Your task to perform on an android device: move a message to another label in the gmail app Image 0: 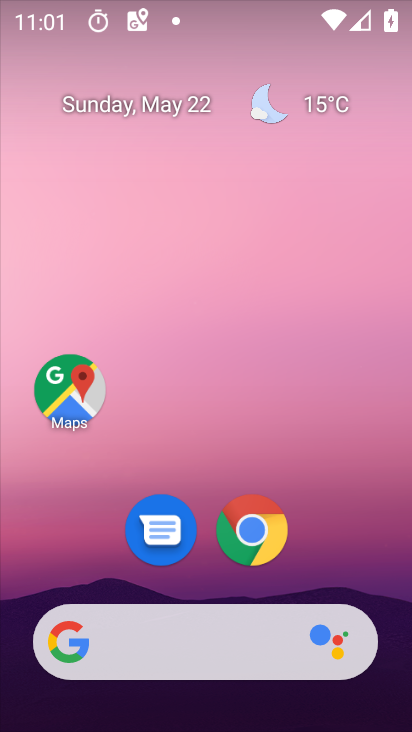
Step 0: drag from (394, 650) to (373, 278)
Your task to perform on an android device: move a message to another label in the gmail app Image 1: 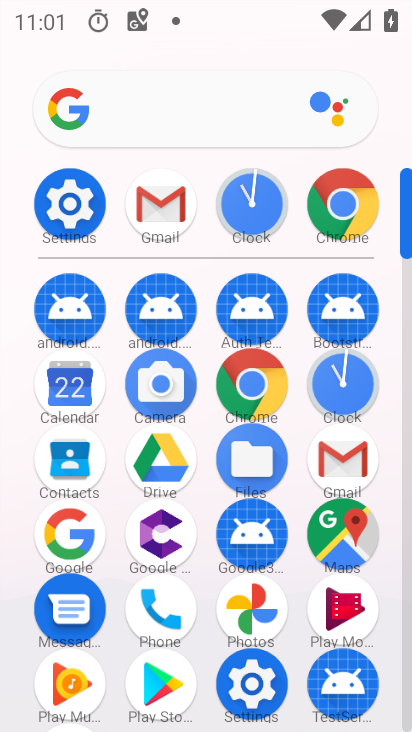
Step 1: click (164, 199)
Your task to perform on an android device: move a message to another label in the gmail app Image 2: 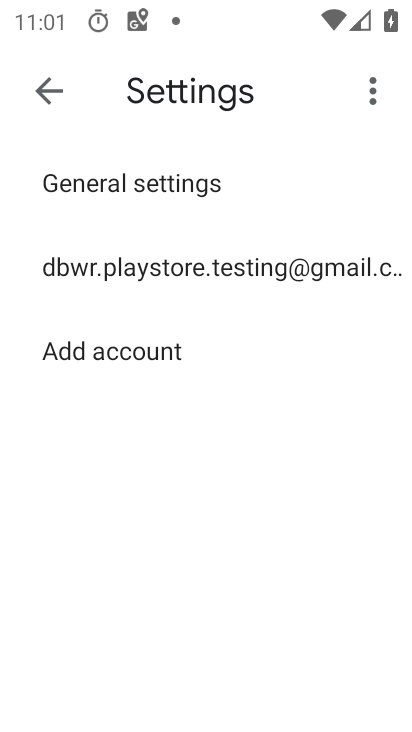
Step 2: click (44, 85)
Your task to perform on an android device: move a message to another label in the gmail app Image 3: 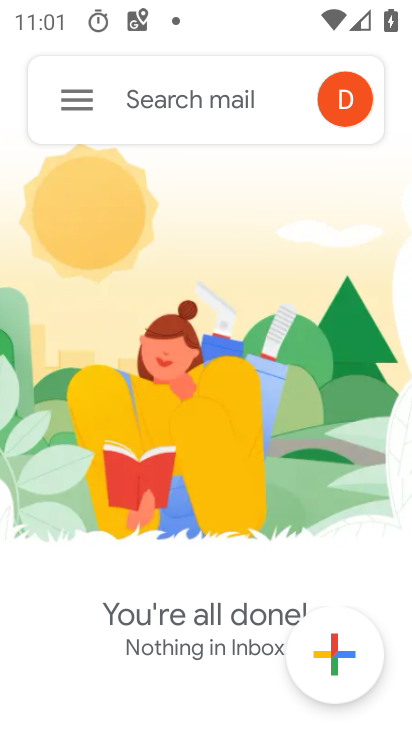
Step 3: click (72, 99)
Your task to perform on an android device: move a message to another label in the gmail app Image 4: 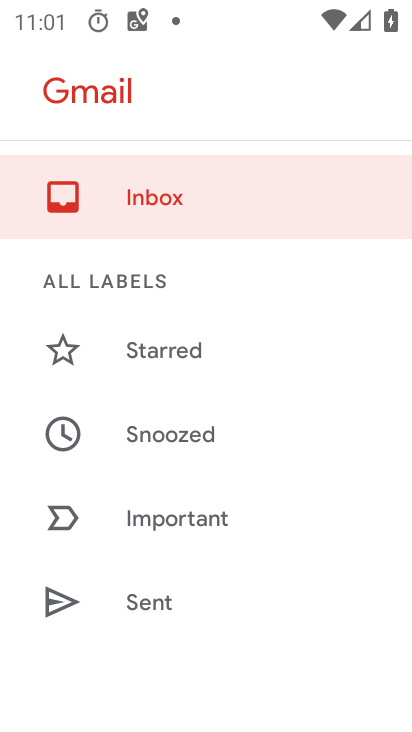
Step 4: click (181, 202)
Your task to perform on an android device: move a message to another label in the gmail app Image 5: 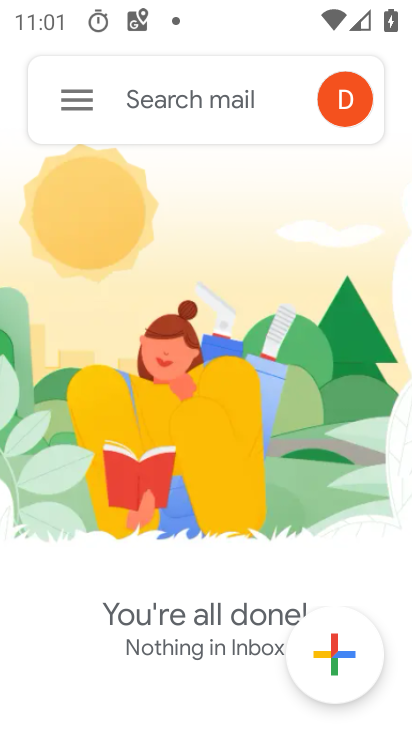
Step 5: task complete